Your task to perform on an android device: set the stopwatch Image 0: 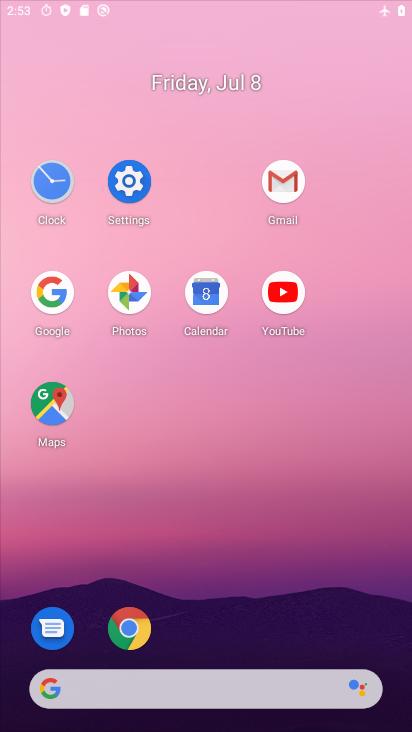
Step 0: click (133, 195)
Your task to perform on an android device: set the stopwatch Image 1: 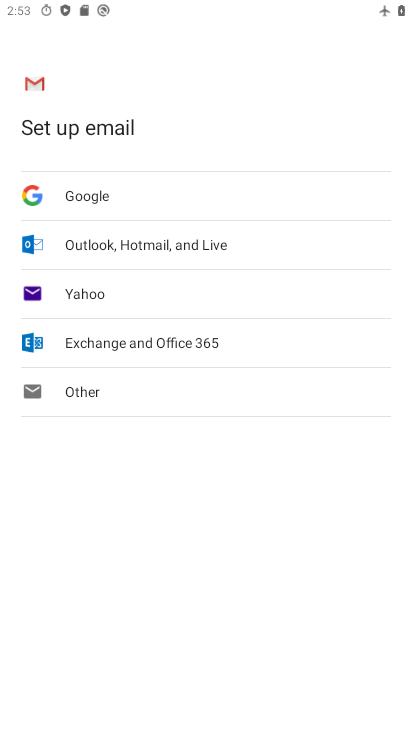
Step 1: press home button
Your task to perform on an android device: set the stopwatch Image 2: 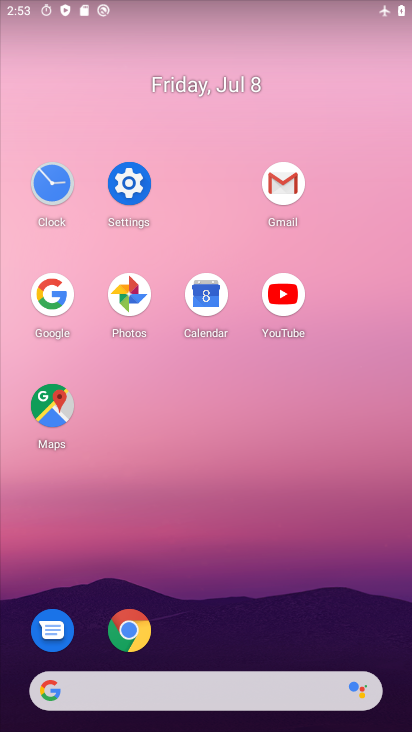
Step 2: click (61, 187)
Your task to perform on an android device: set the stopwatch Image 3: 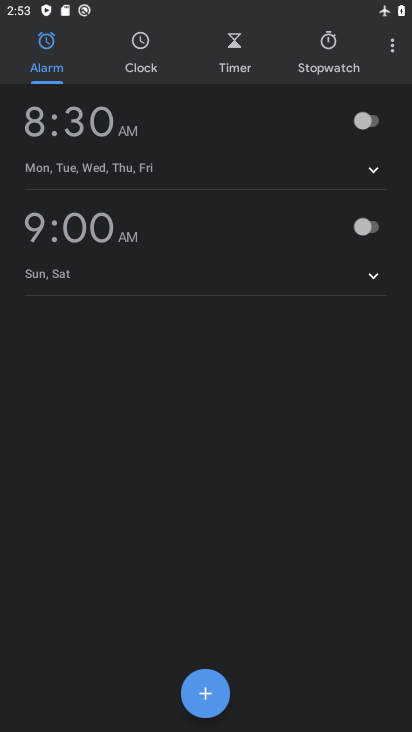
Step 3: click (338, 50)
Your task to perform on an android device: set the stopwatch Image 4: 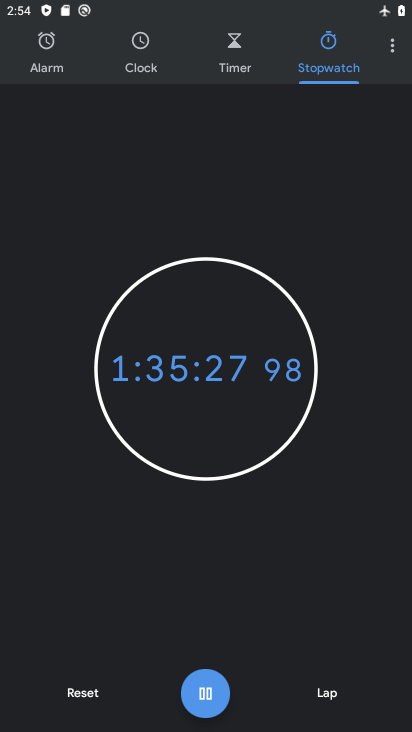
Step 4: click (75, 709)
Your task to perform on an android device: set the stopwatch Image 5: 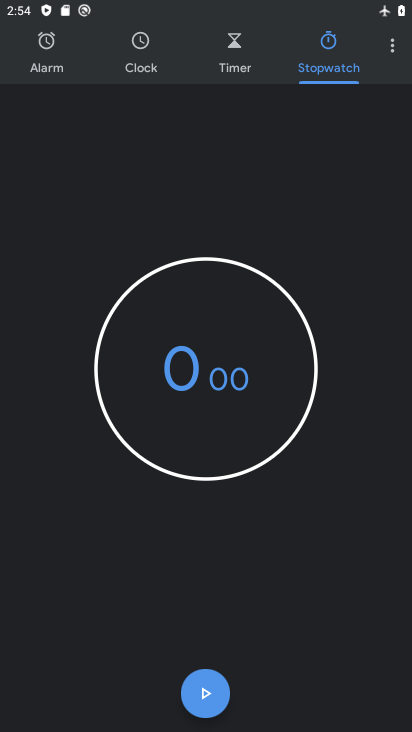
Step 5: click (219, 682)
Your task to perform on an android device: set the stopwatch Image 6: 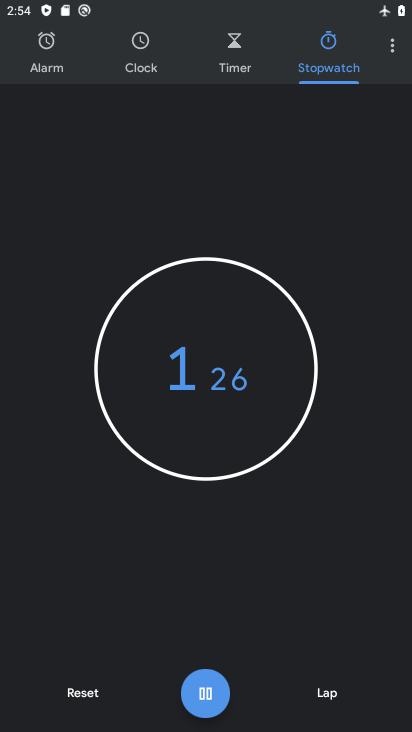
Step 6: task complete